Your task to perform on an android device: open app "Facebook Messenger" (install if not already installed) Image 0: 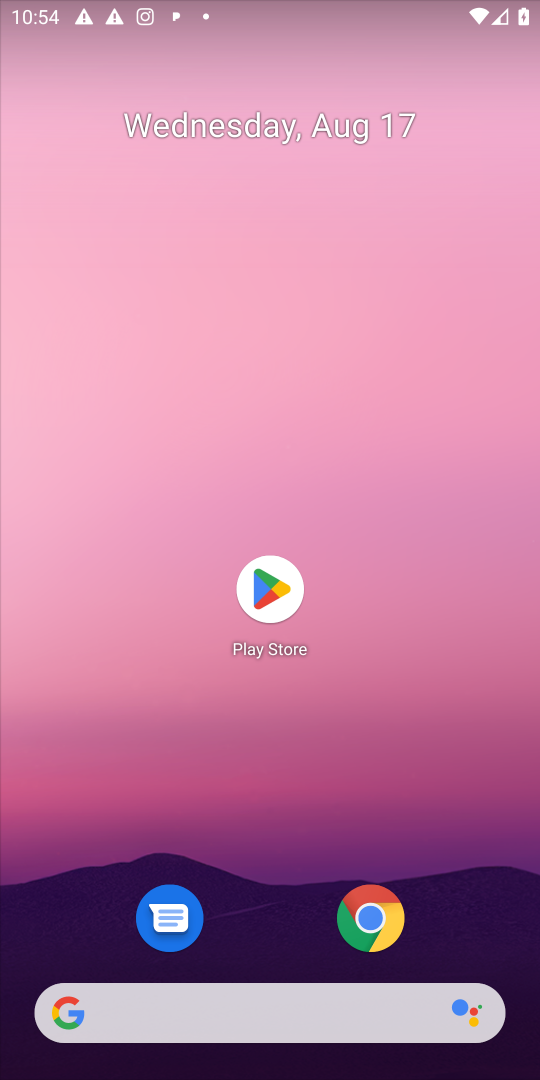
Step 0: press home button
Your task to perform on an android device: open app "Facebook Messenger" (install if not already installed) Image 1: 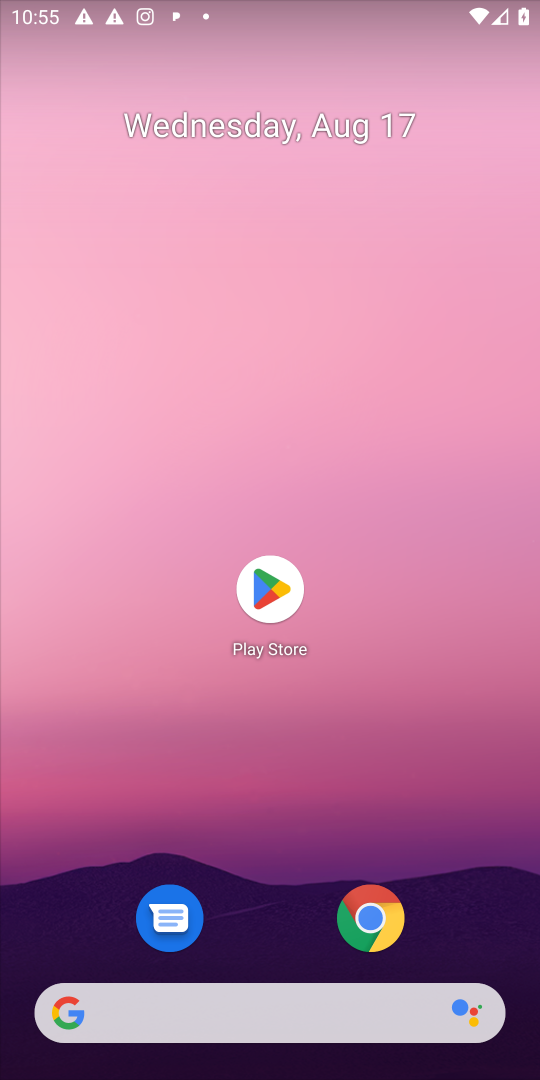
Step 1: click (267, 596)
Your task to perform on an android device: open app "Facebook Messenger" (install if not already installed) Image 2: 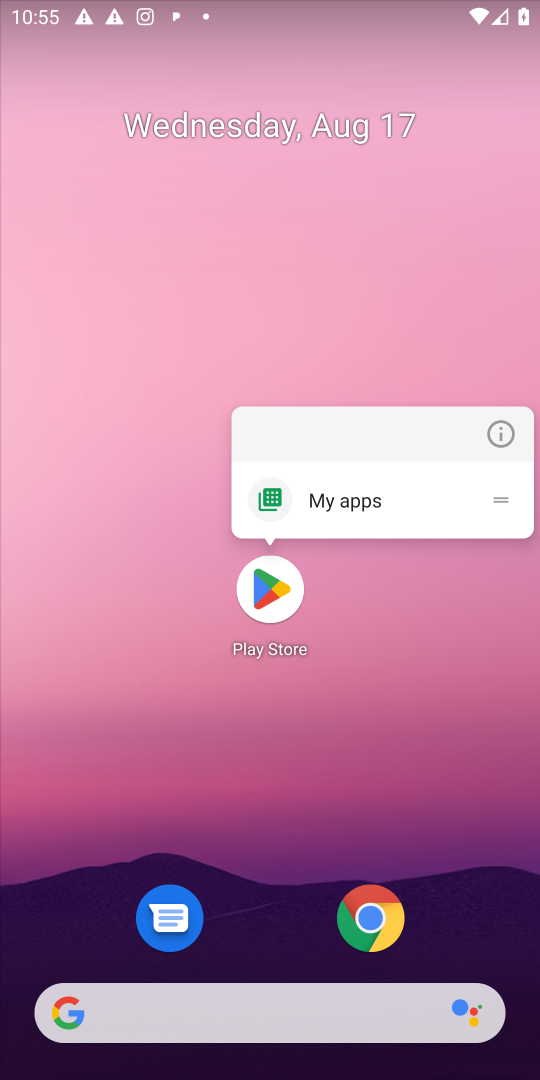
Step 2: click (267, 596)
Your task to perform on an android device: open app "Facebook Messenger" (install if not already installed) Image 3: 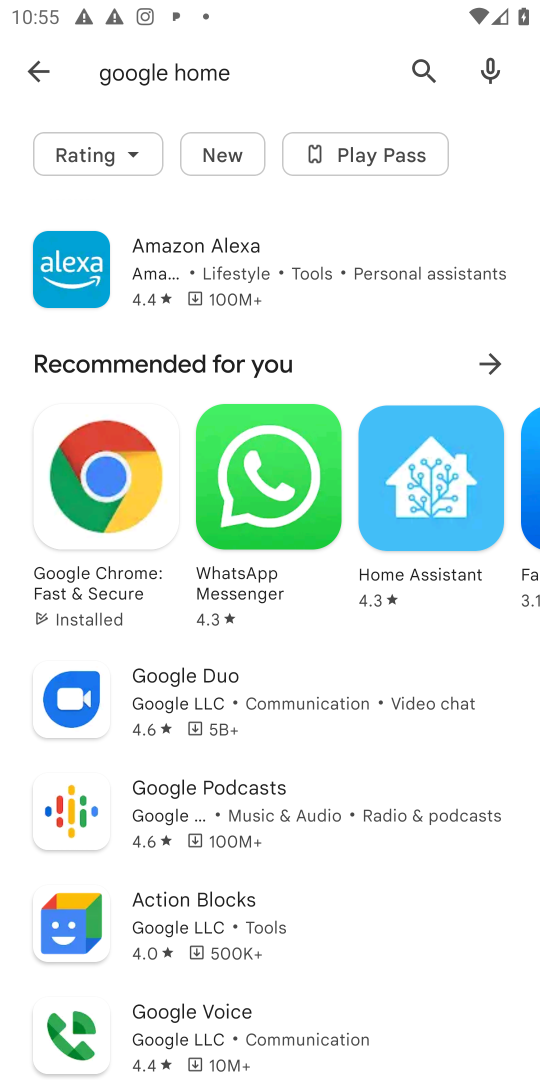
Step 3: click (419, 63)
Your task to perform on an android device: open app "Facebook Messenger" (install if not already installed) Image 4: 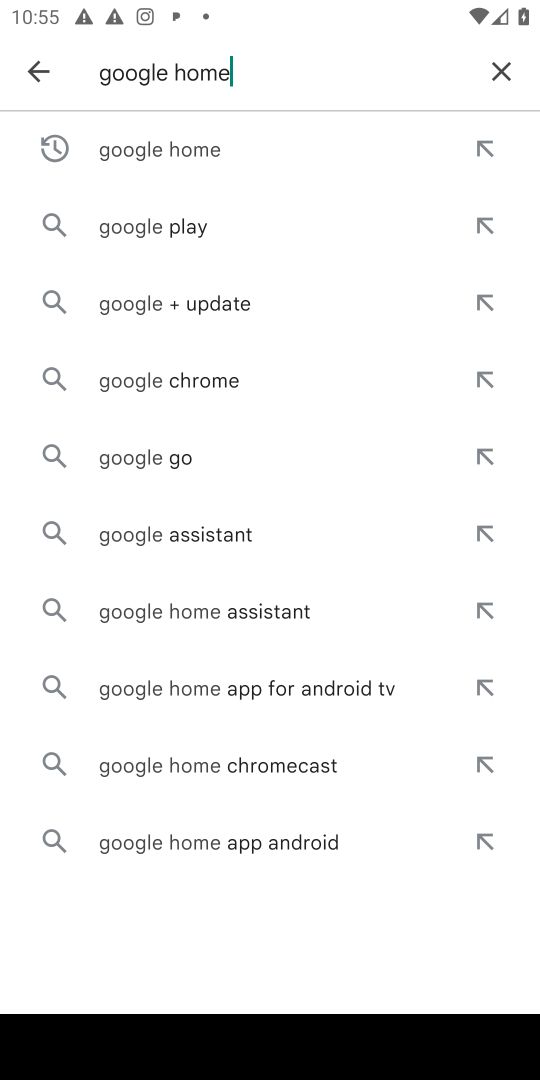
Step 4: click (491, 74)
Your task to perform on an android device: open app "Facebook Messenger" (install if not already installed) Image 5: 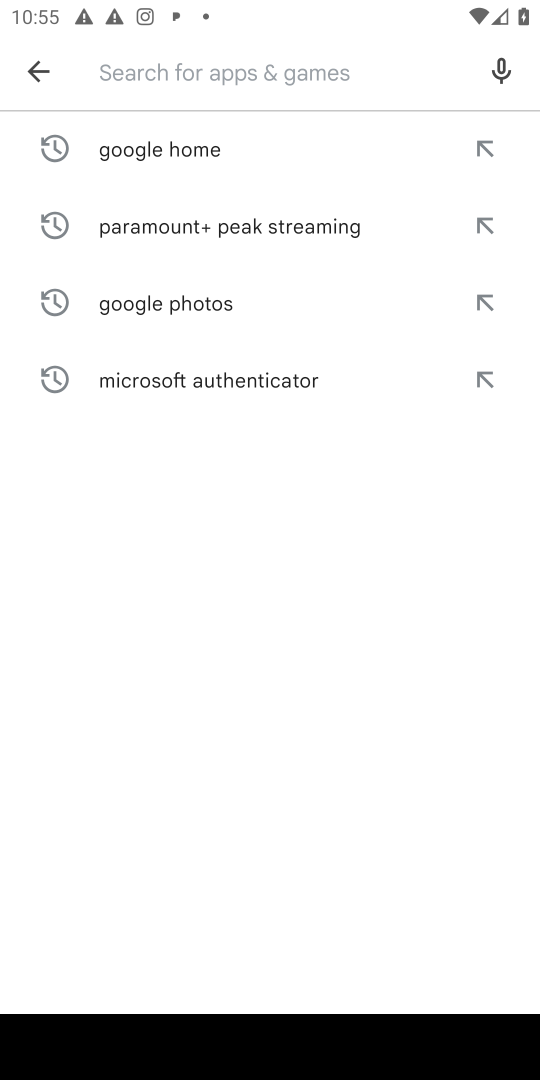
Step 5: type "Facebook Messenger"
Your task to perform on an android device: open app "Facebook Messenger" (install if not already installed) Image 6: 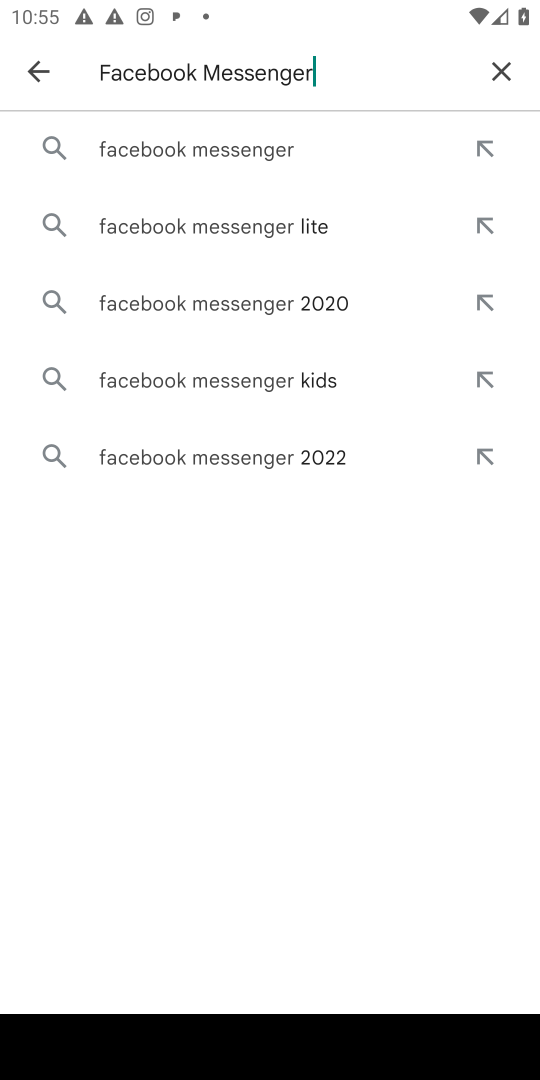
Step 6: click (207, 145)
Your task to perform on an android device: open app "Facebook Messenger" (install if not already installed) Image 7: 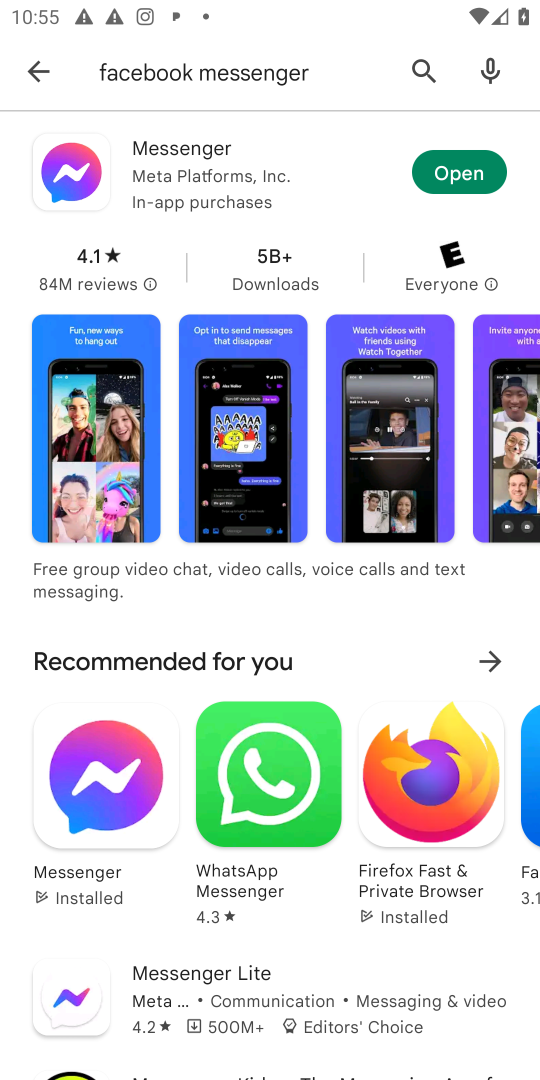
Step 7: click (448, 168)
Your task to perform on an android device: open app "Facebook Messenger" (install if not already installed) Image 8: 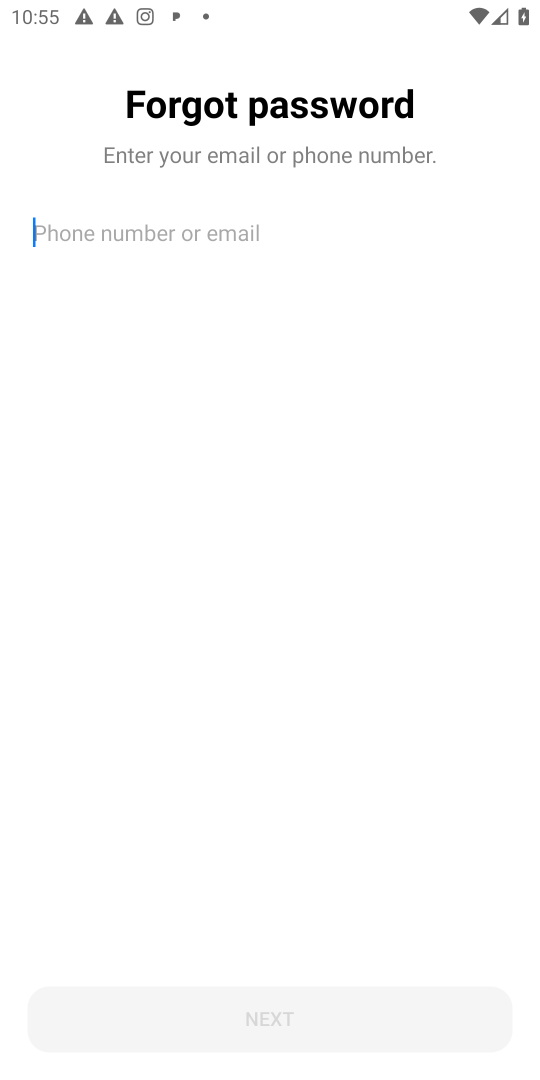
Step 8: task complete